Your task to perform on an android device: turn on priority inbox in the gmail app Image 0: 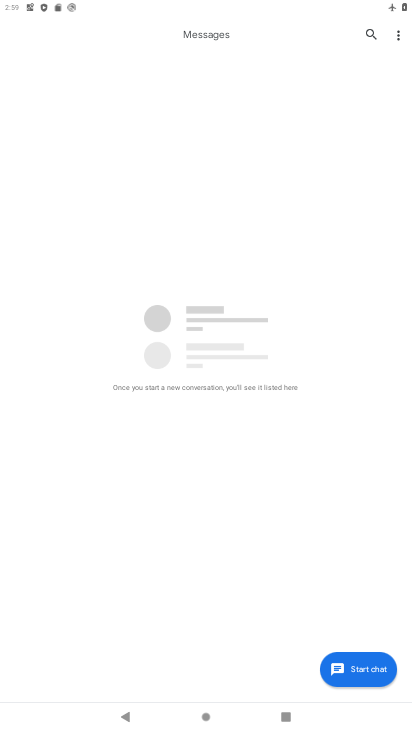
Step 0: press home button
Your task to perform on an android device: turn on priority inbox in the gmail app Image 1: 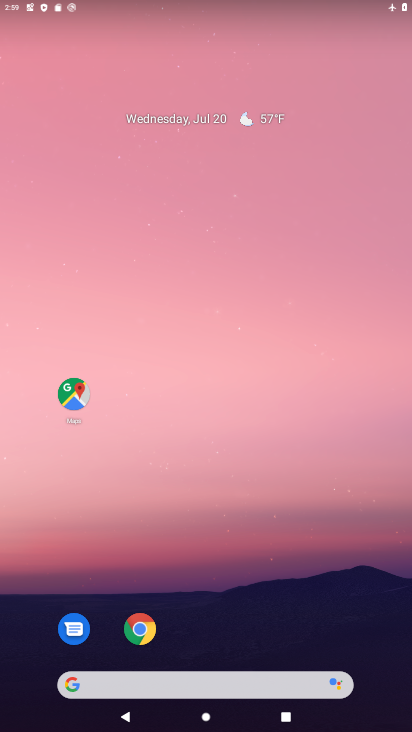
Step 1: drag from (201, 626) to (216, 299)
Your task to perform on an android device: turn on priority inbox in the gmail app Image 2: 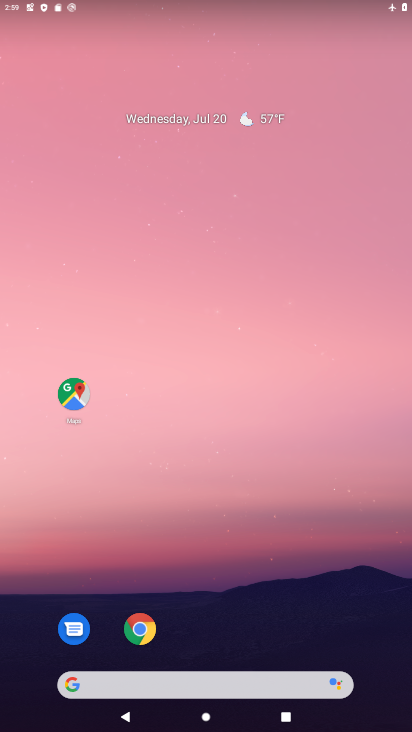
Step 2: drag from (210, 615) to (229, 156)
Your task to perform on an android device: turn on priority inbox in the gmail app Image 3: 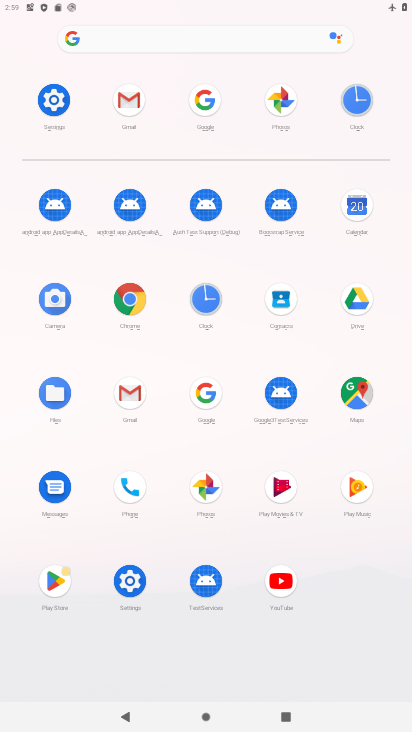
Step 3: click (140, 100)
Your task to perform on an android device: turn on priority inbox in the gmail app Image 4: 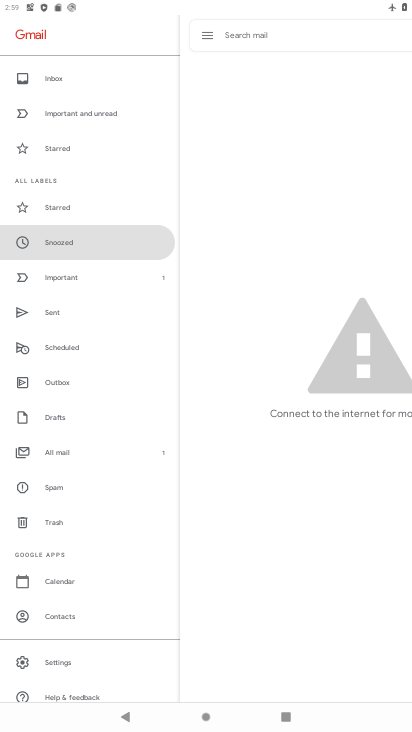
Step 4: click (34, 656)
Your task to perform on an android device: turn on priority inbox in the gmail app Image 5: 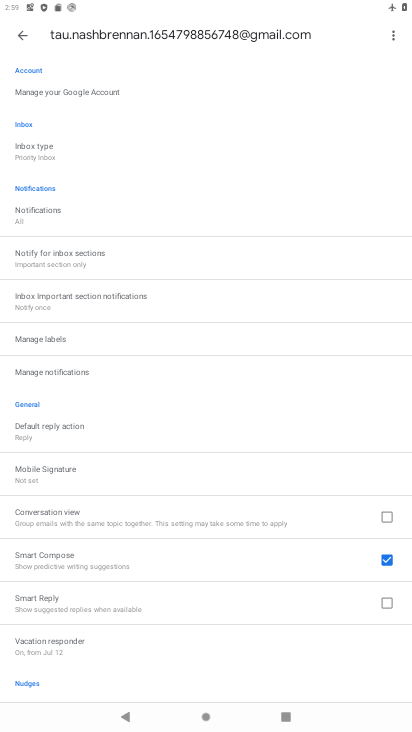
Step 5: click (49, 163)
Your task to perform on an android device: turn on priority inbox in the gmail app Image 6: 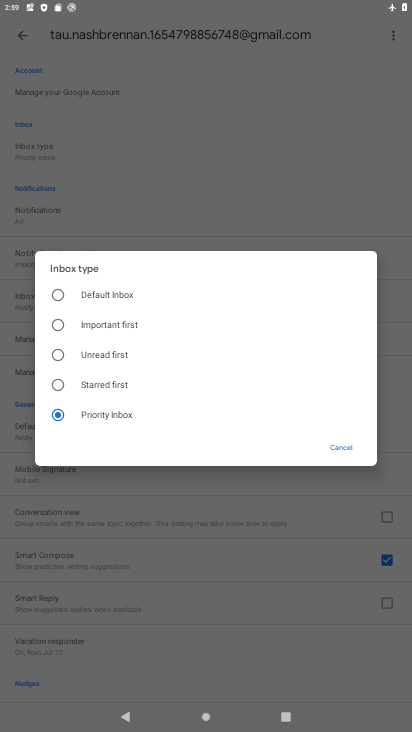
Step 6: task complete